Your task to perform on an android device: open app "Messages" (install if not already installed) Image 0: 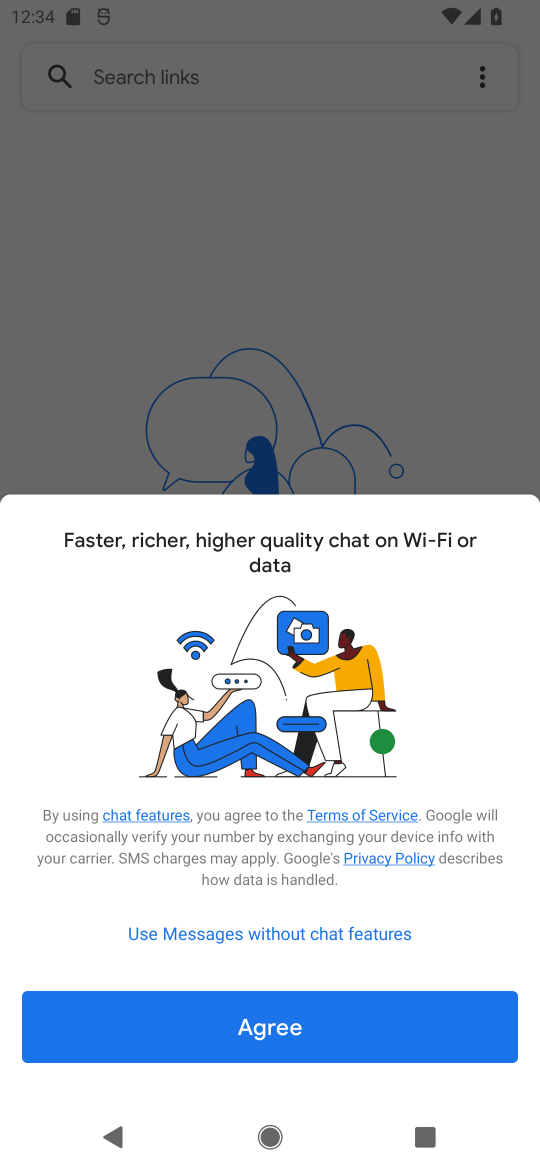
Step 0: press back button
Your task to perform on an android device: open app "Messages" (install if not already installed) Image 1: 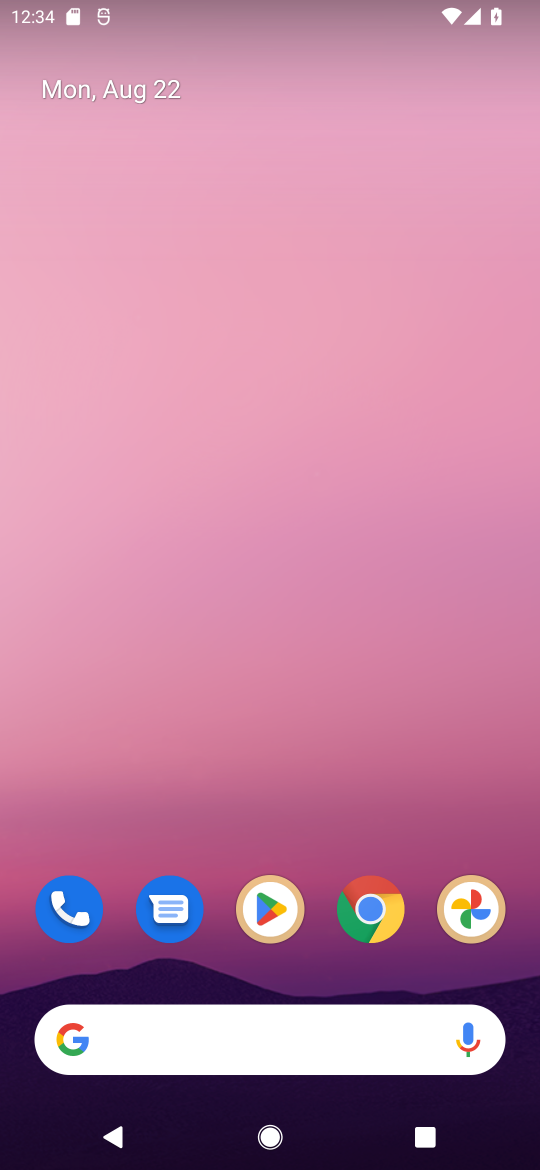
Step 1: click (275, 908)
Your task to perform on an android device: open app "Messages" (install if not already installed) Image 2: 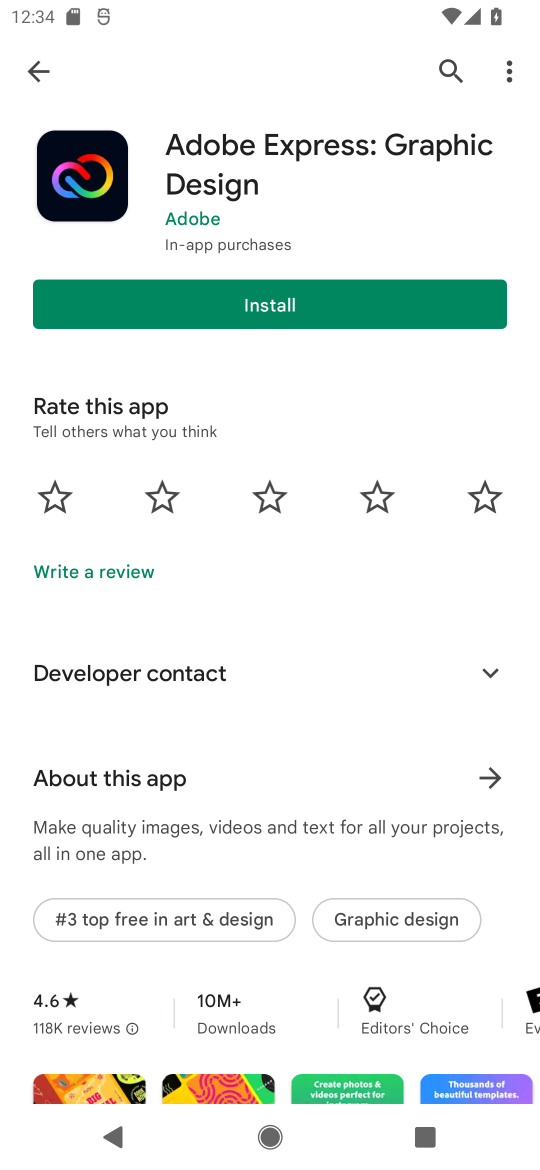
Step 2: press back button
Your task to perform on an android device: open app "Messages" (install if not already installed) Image 3: 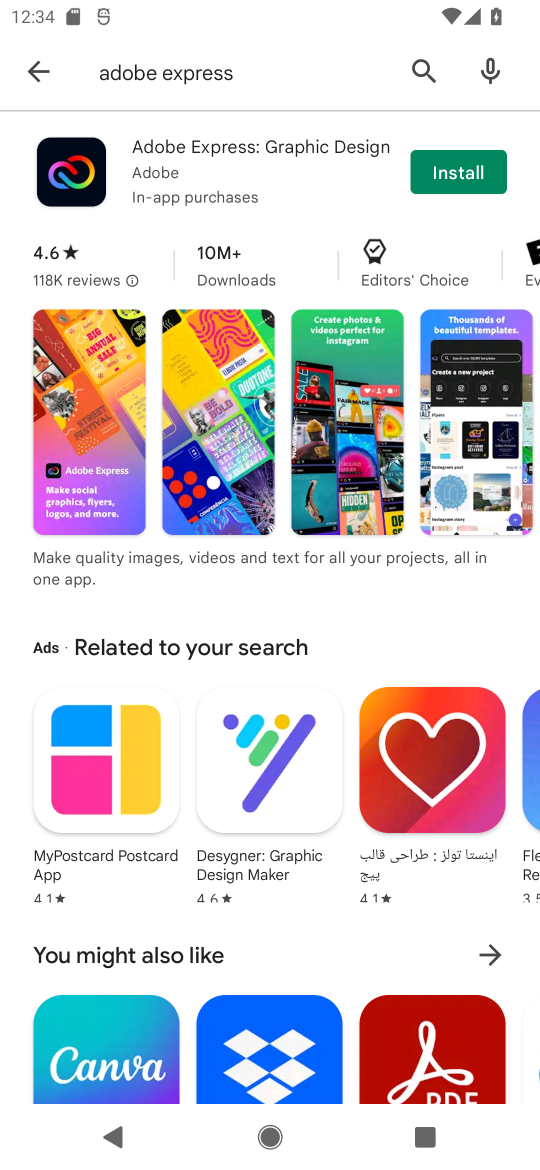
Step 3: click (430, 62)
Your task to perform on an android device: open app "Messages" (install if not already installed) Image 4: 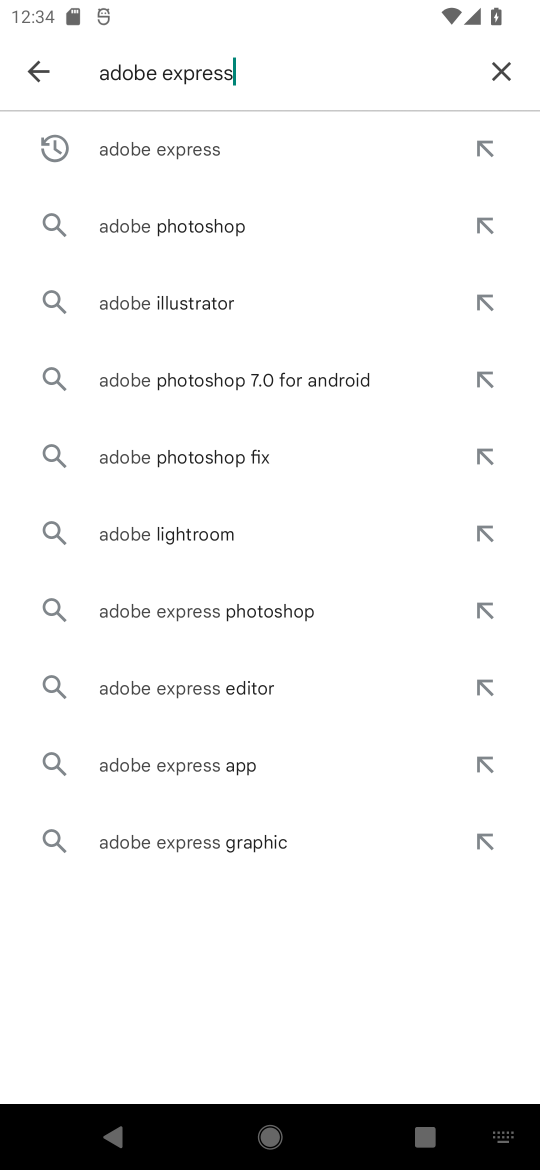
Step 4: click (493, 67)
Your task to perform on an android device: open app "Messages" (install if not already installed) Image 5: 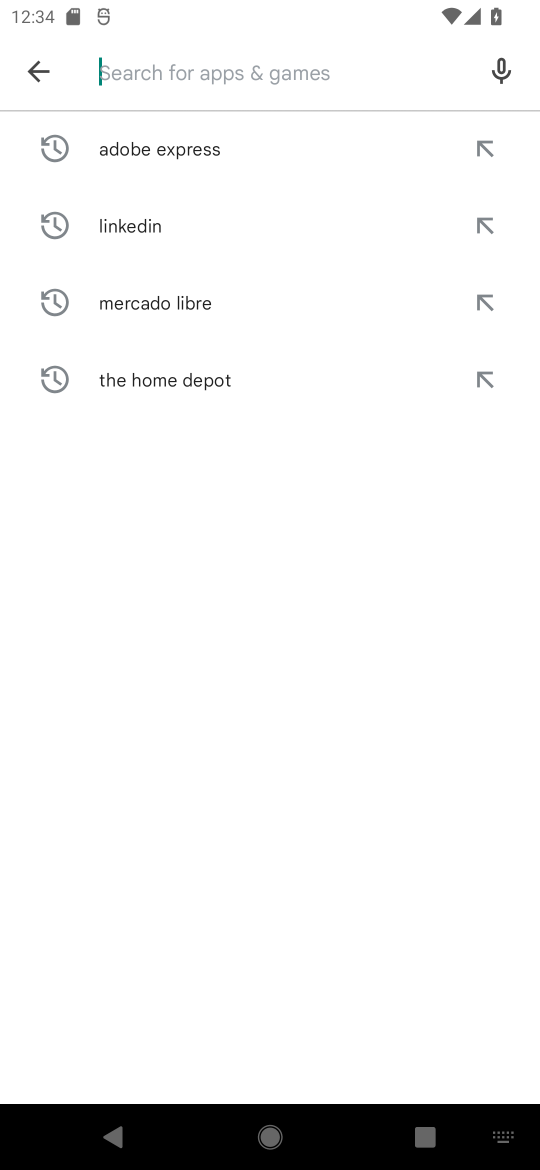
Step 5: click (188, 73)
Your task to perform on an android device: open app "Messages" (install if not already installed) Image 6: 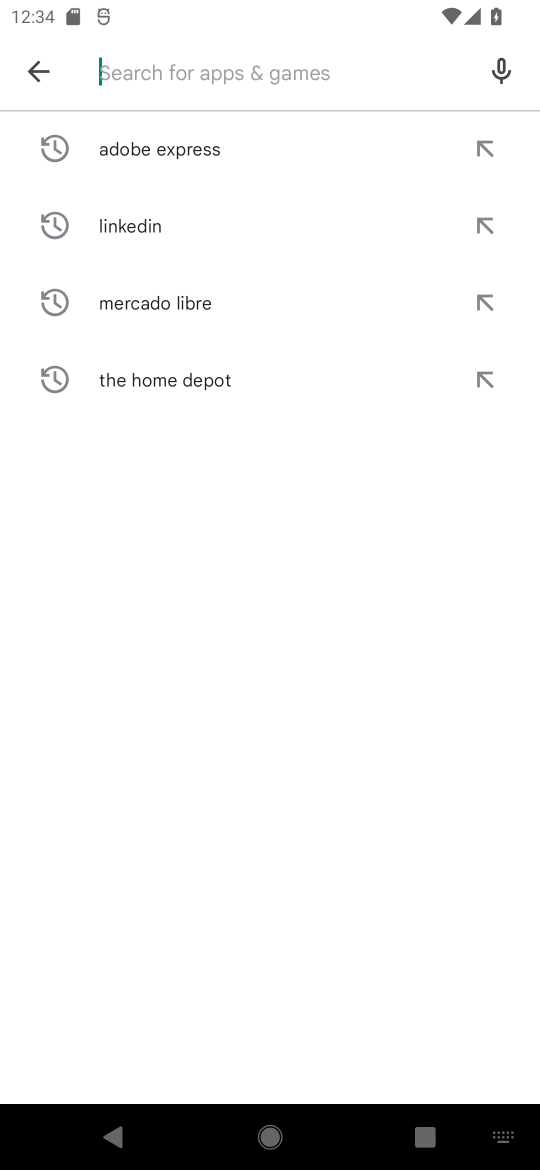
Step 6: type "Messages"
Your task to perform on an android device: open app "Messages" (install if not already installed) Image 7: 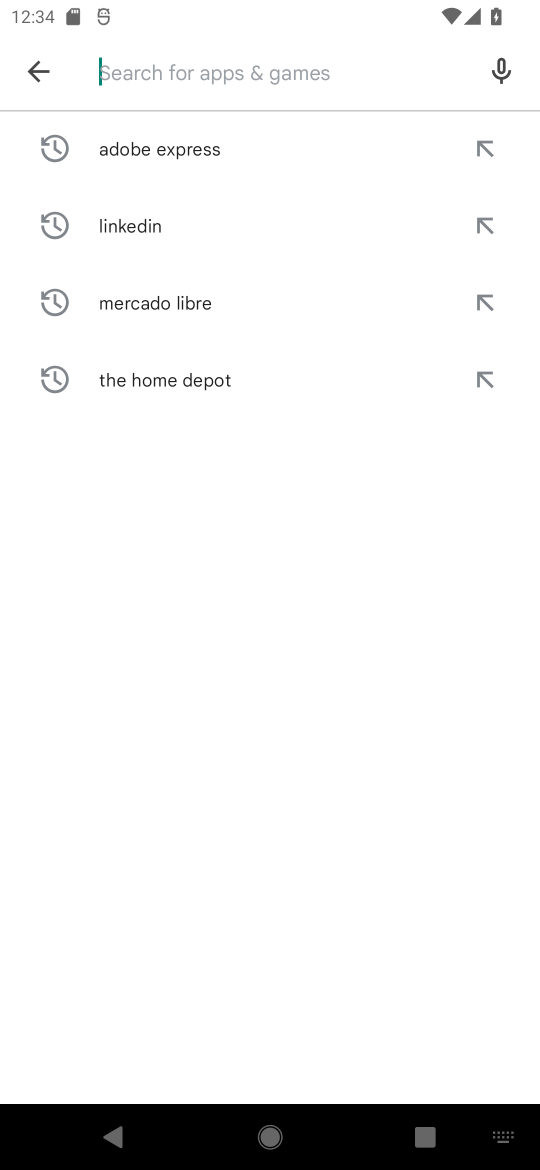
Step 7: click (353, 813)
Your task to perform on an android device: open app "Messages" (install if not already installed) Image 8: 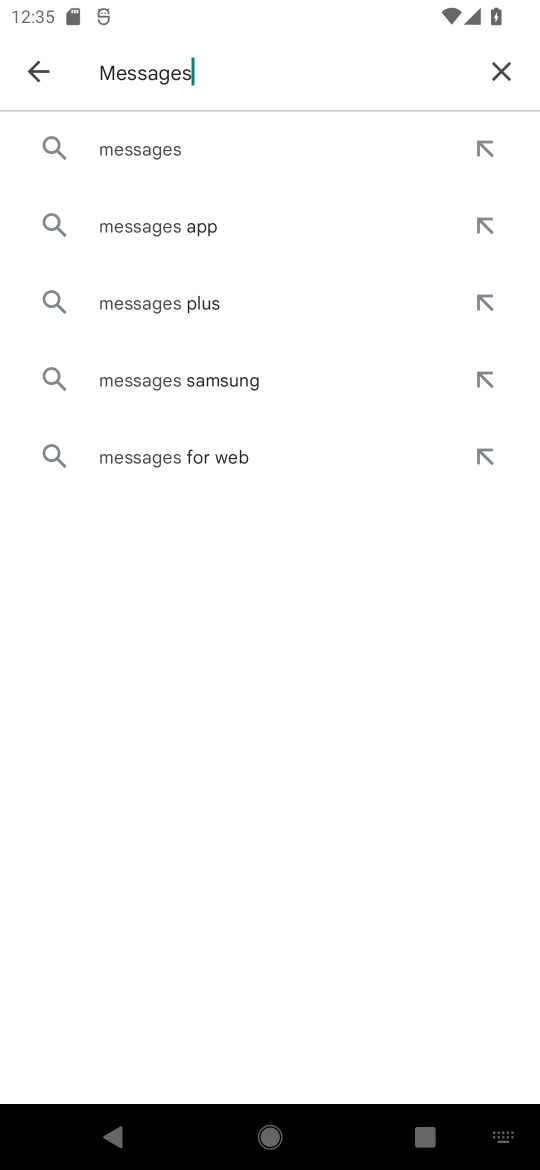
Step 8: click (165, 142)
Your task to perform on an android device: open app "Messages" (install if not already installed) Image 9: 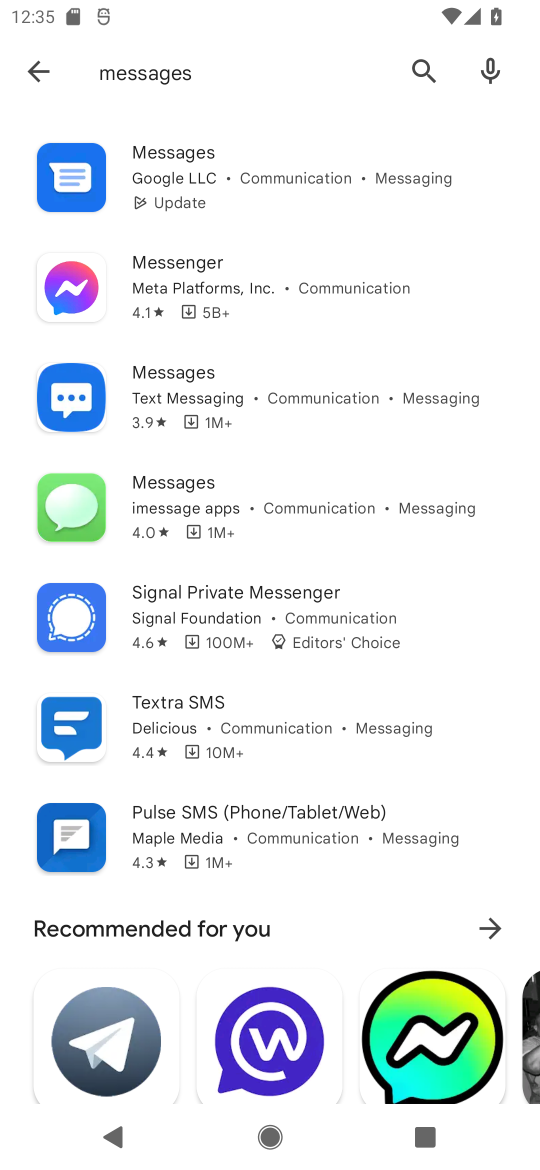
Step 9: click (202, 167)
Your task to perform on an android device: open app "Messages" (install if not already installed) Image 10: 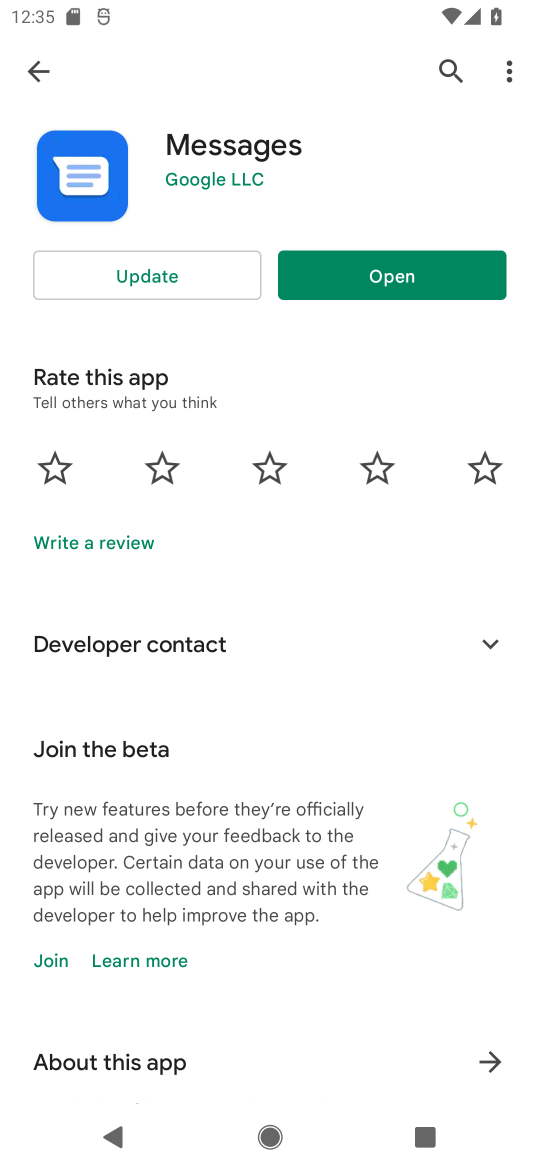
Step 10: click (374, 277)
Your task to perform on an android device: open app "Messages" (install if not already installed) Image 11: 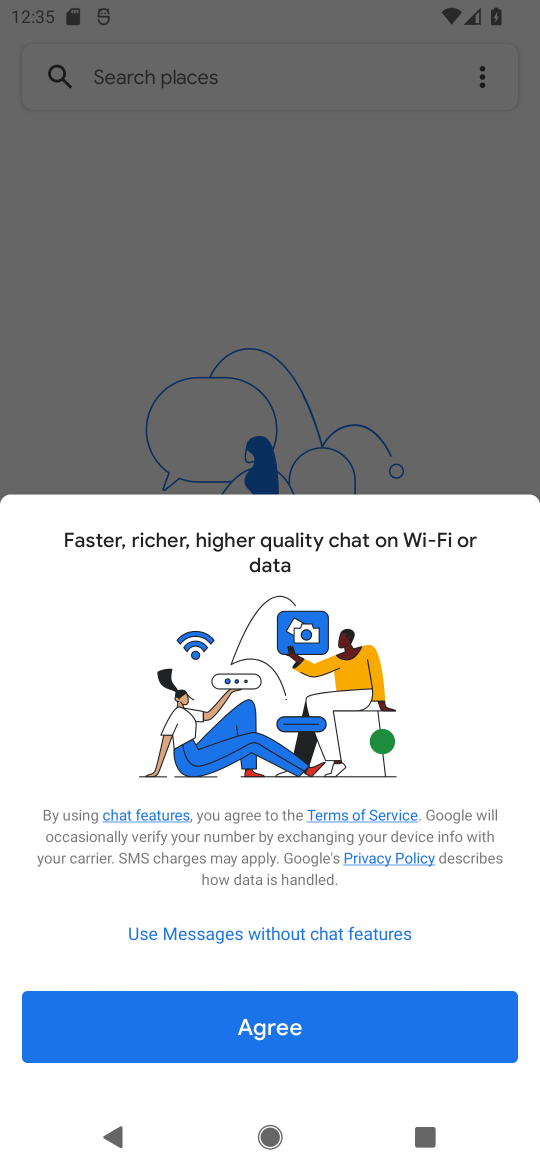
Step 11: task complete